Your task to perform on an android device: turn off data saver in the chrome app Image 0: 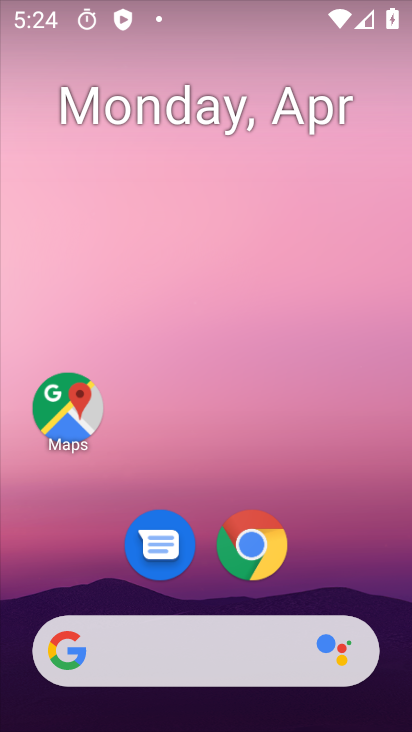
Step 0: drag from (321, 567) to (344, 95)
Your task to perform on an android device: turn off data saver in the chrome app Image 1: 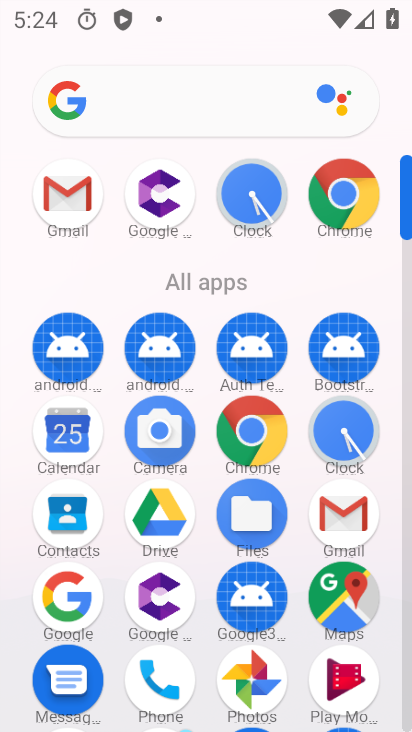
Step 1: drag from (276, 289) to (280, 16)
Your task to perform on an android device: turn off data saver in the chrome app Image 2: 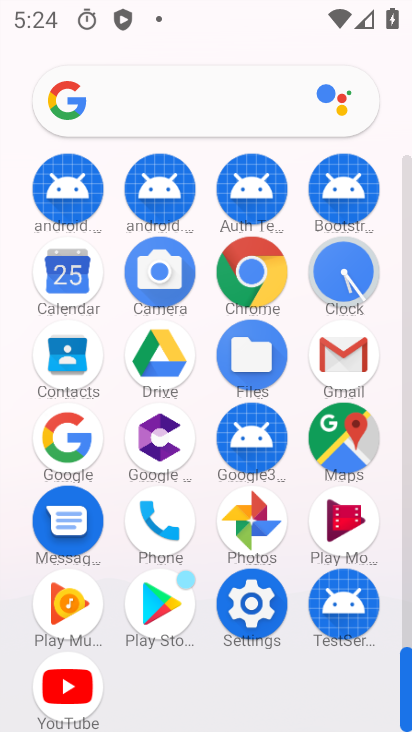
Step 2: click (253, 278)
Your task to perform on an android device: turn off data saver in the chrome app Image 3: 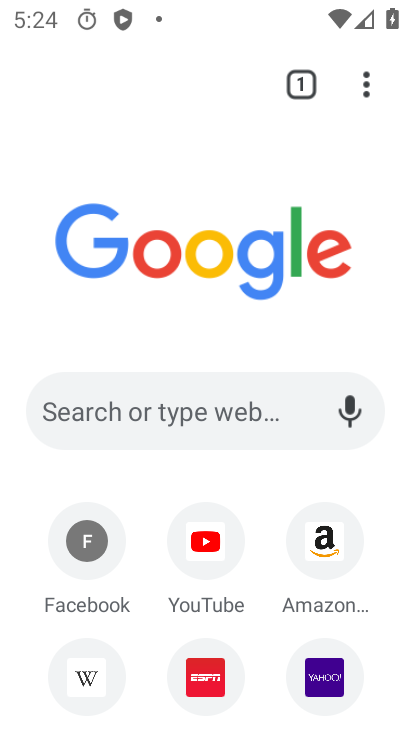
Step 3: drag from (360, 85) to (136, 581)
Your task to perform on an android device: turn off data saver in the chrome app Image 4: 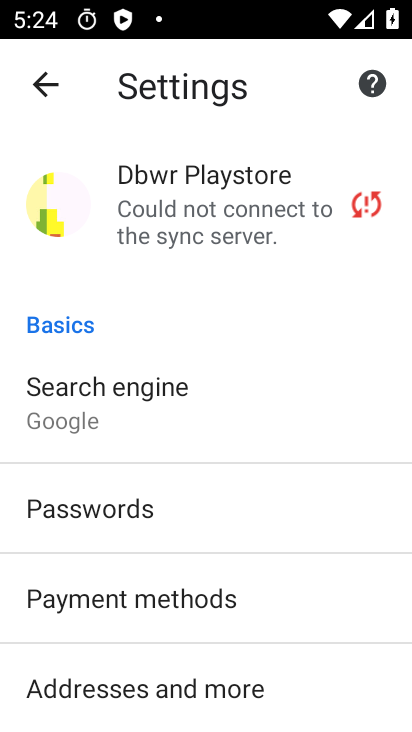
Step 4: drag from (332, 687) to (388, 361)
Your task to perform on an android device: turn off data saver in the chrome app Image 5: 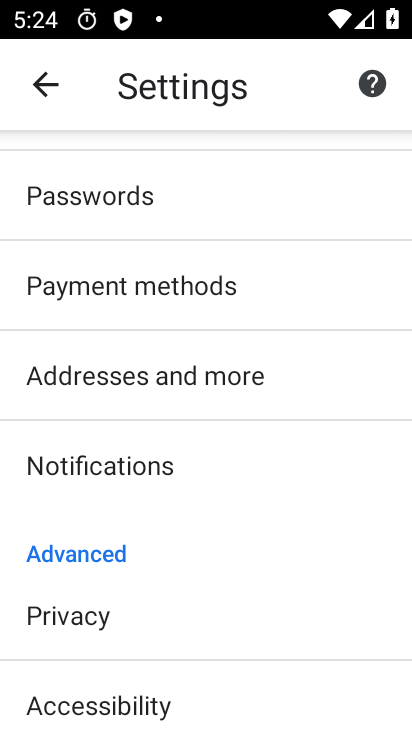
Step 5: drag from (303, 657) to (328, 389)
Your task to perform on an android device: turn off data saver in the chrome app Image 6: 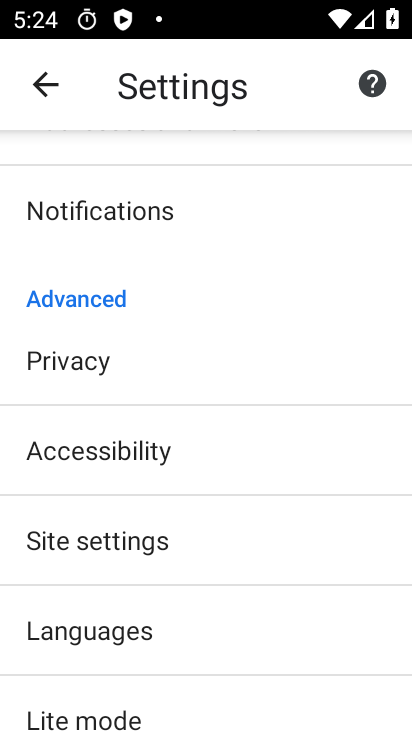
Step 6: click (113, 708)
Your task to perform on an android device: turn off data saver in the chrome app Image 7: 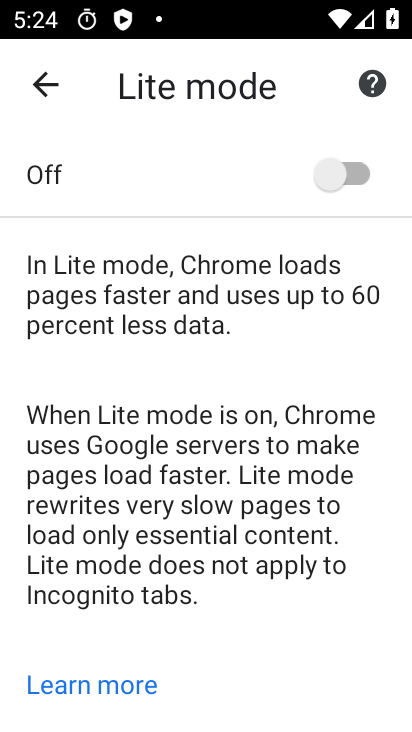
Step 7: task complete